Your task to perform on an android device: Go to Yahoo.com Image 0: 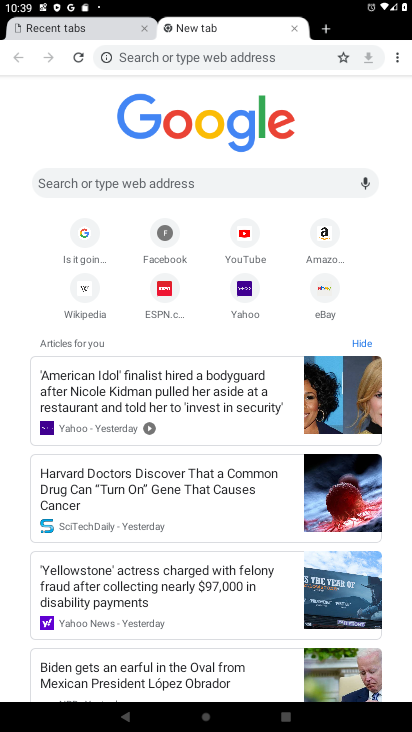
Step 0: click (247, 300)
Your task to perform on an android device: Go to Yahoo.com Image 1: 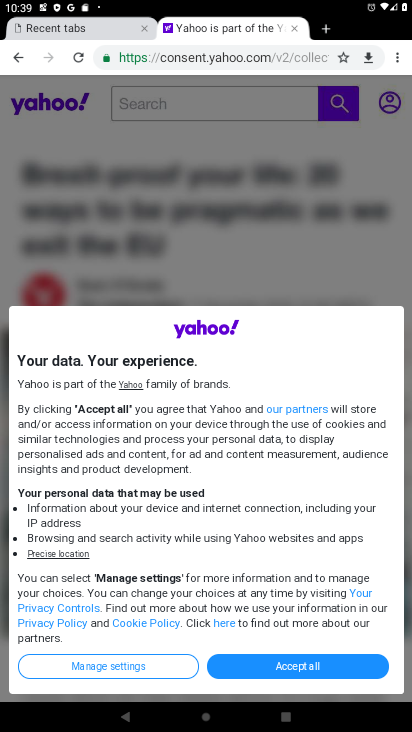
Step 1: click (283, 667)
Your task to perform on an android device: Go to Yahoo.com Image 2: 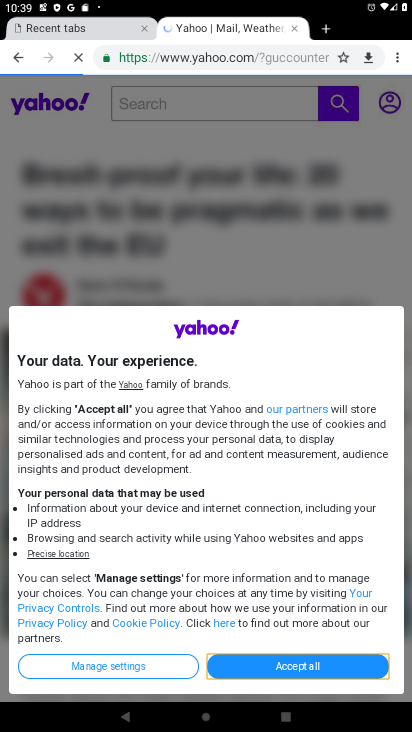
Step 2: task complete